Your task to perform on an android device: Go to ESPN.com Image 0: 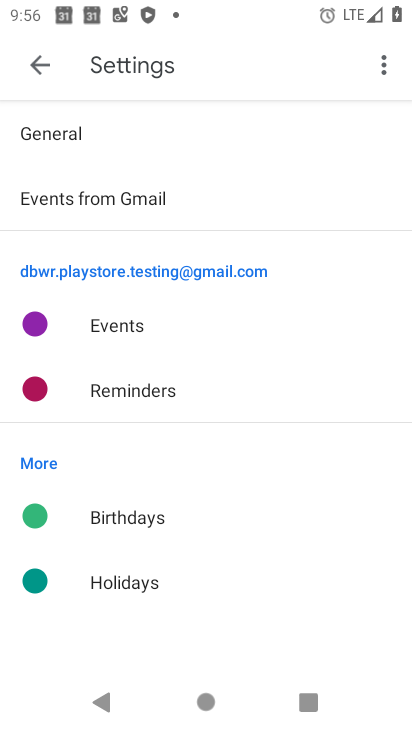
Step 0: press home button
Your task to perform on an android device: Go to ESPN.com Image 1: 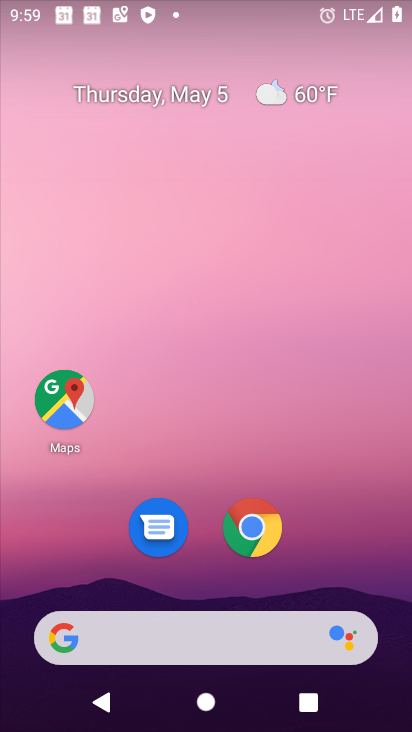
Step 1: type "espn.com"
Your task to perform on an android device: Go to ESPN.com Image 2: 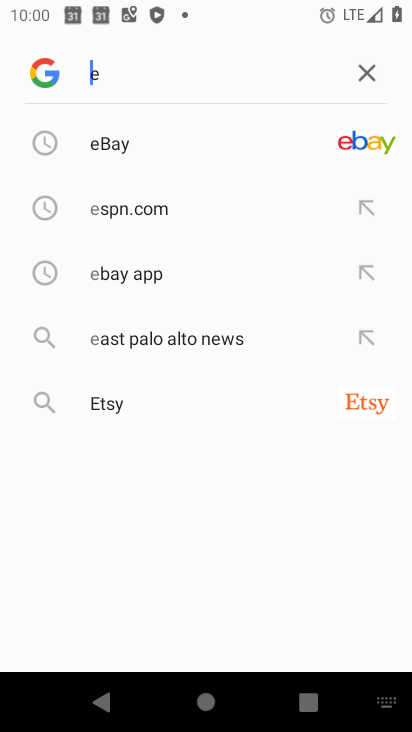
Step 2: click (221, 203)
Your task to perform on an android device: Go to ESPN.com Image 3: 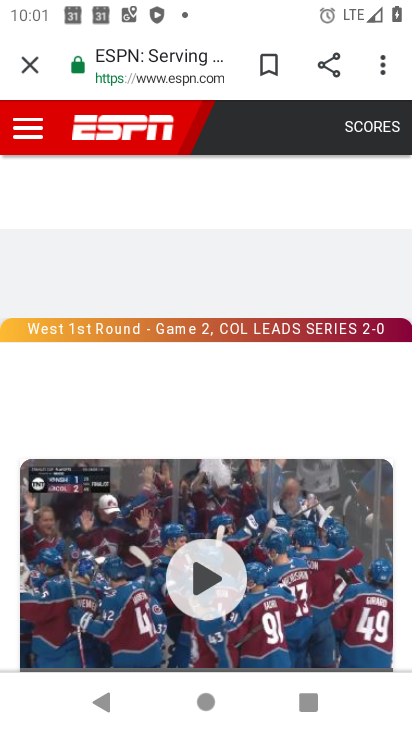
Step 3: task complete